Your task to perform on an android device: Open settings on Google Maps Image 0: 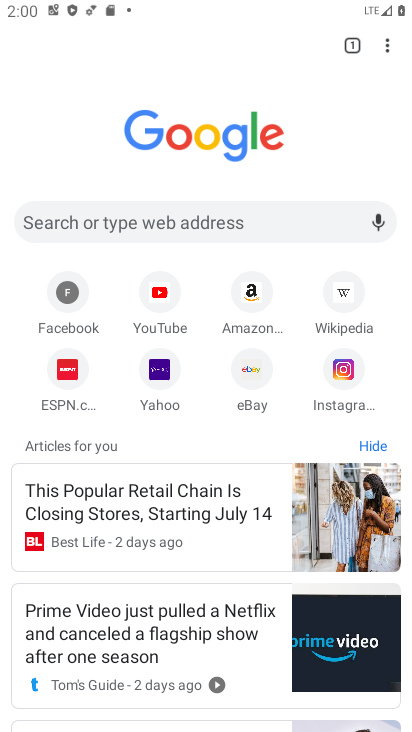
Step 0: press home button
Your task to perform on an android device: Open settings on Google Maps Image 1: 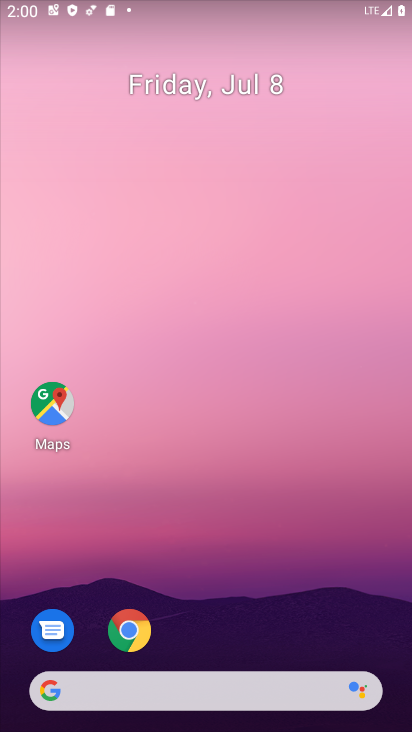
Step 1: drag from (239, 642) to (263, 1)
Your task to perform on an android device: Open settings on Google Maps Image 2: 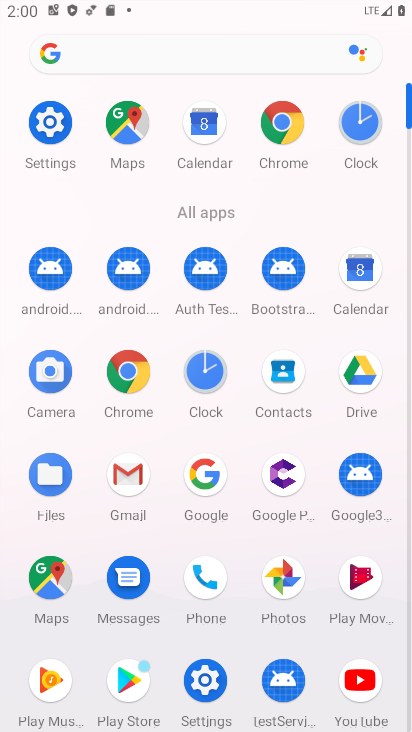
Step 2: click (52, 574)
Your task to perform on an android device: Open settings on Google Maps Image 3: 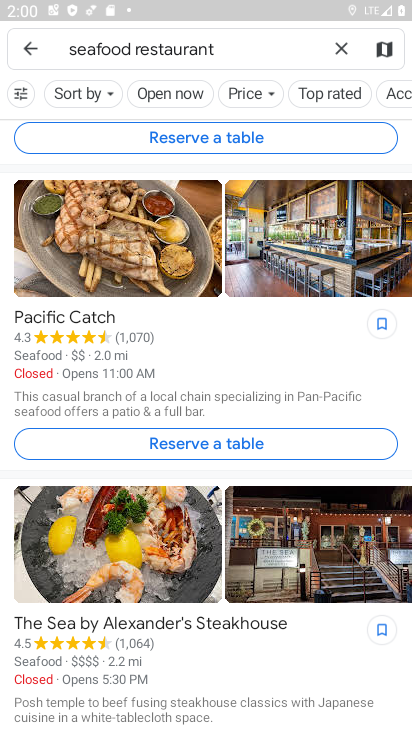
Step 3: click (39, 48)
Your task to perform on an android device: Open settings on Google Maps Image 4: 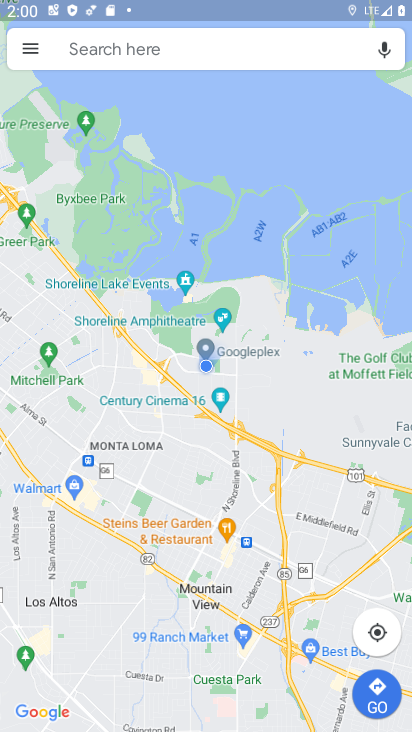
Step 4: click (34, 46)
Your task to perform on an android device: Open settings on Google Maps Image 5: 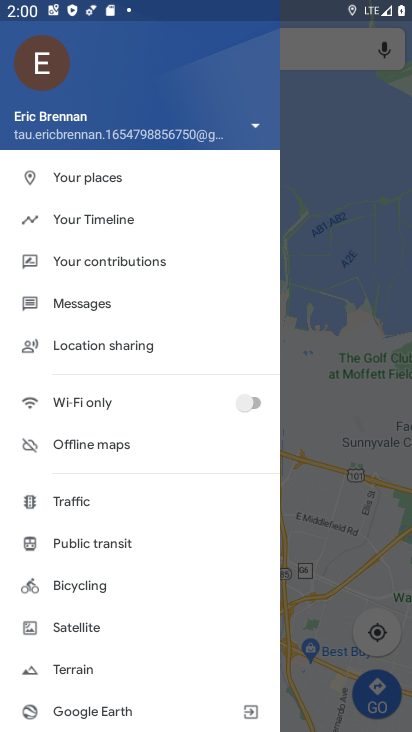
Step 5: drag from (94, 673) to (128, 139)
Your task to perform on an android device: Open settings on Google Maps Image 6: 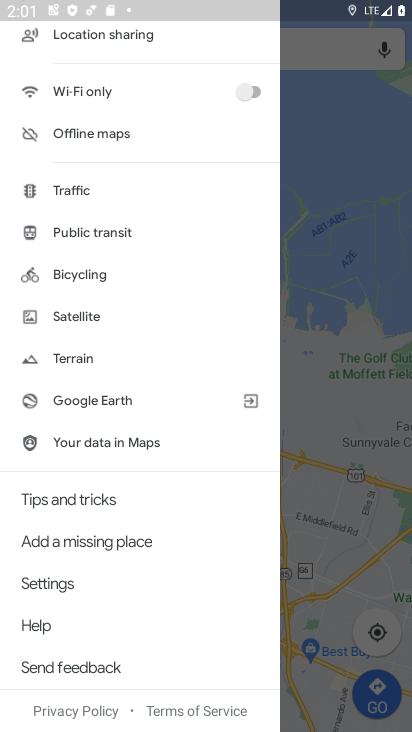
Step 6: click (76, 581)
Your task to perform on an android device: Open settings on Google Maps Image 7: 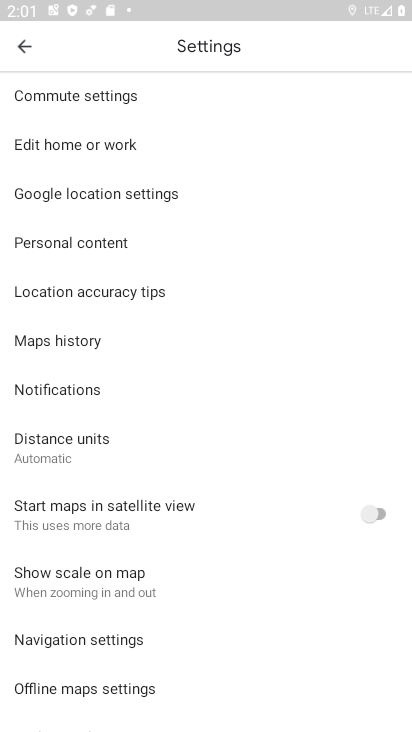
Step 7: task complete